Your task to perform on an android device: turn on the 24-hour format for clock Image 0: 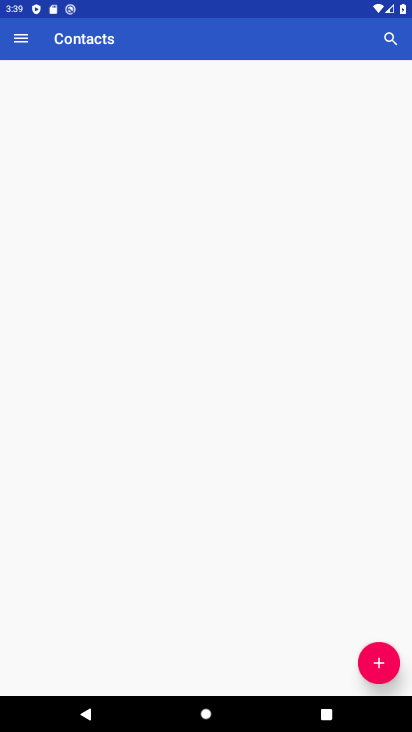
Step 0: press home button
Your task to perform on an android device: turn on the 24-hour format for clock Image 1: 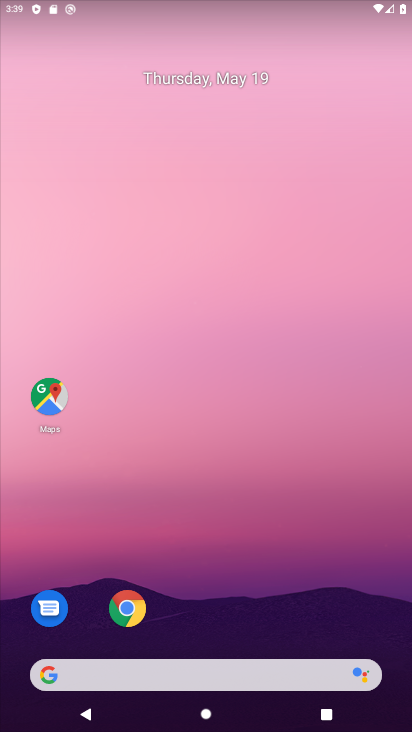
Step 1: drag from (243, 592) to (184, 153)
Your task to perform on an android device: turn on the 24-hour format for clock Image 2: 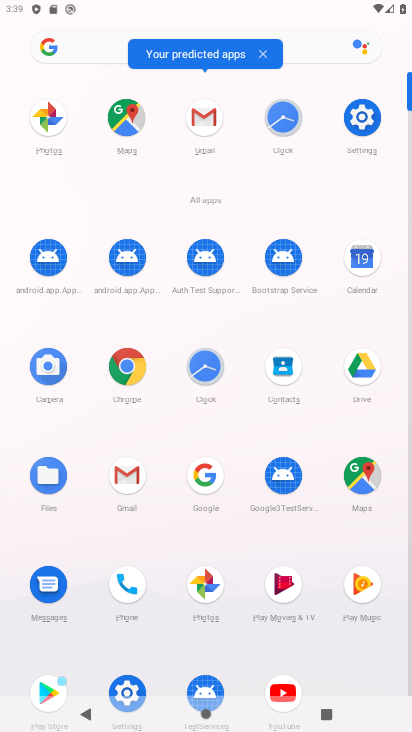
Step 2: click (282, 117)
Your task to perform on an android device: turn on the 24-hour format for clock Image 3: 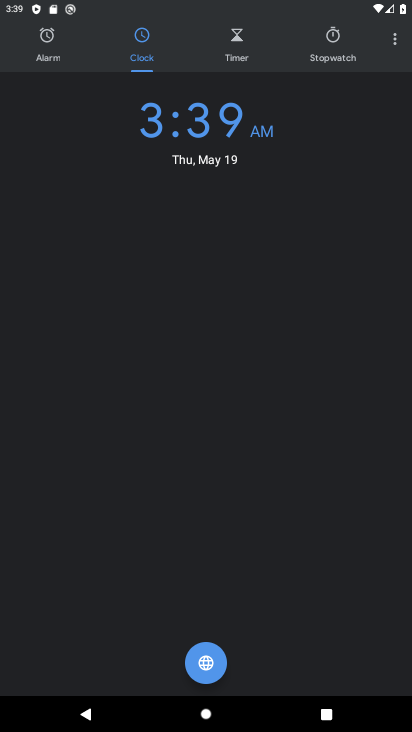
Step 3: click (396, 39)
Your task to perform on an android device: turn on the 24-hour format for clock Image 4: 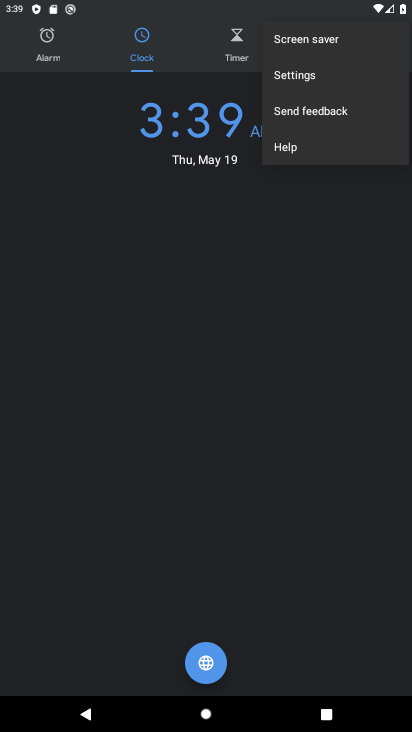
Step 4: click (316, 79)
Your task to perform on an android device: turn on the 24-hour format for clock Image 5: 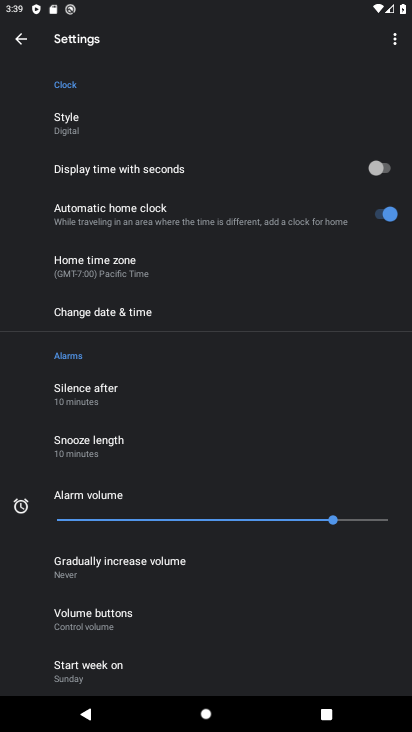
Step 5: click (99, 311)
Your task to perform on an android device: turn on the 24-hour format for clock Image 6: 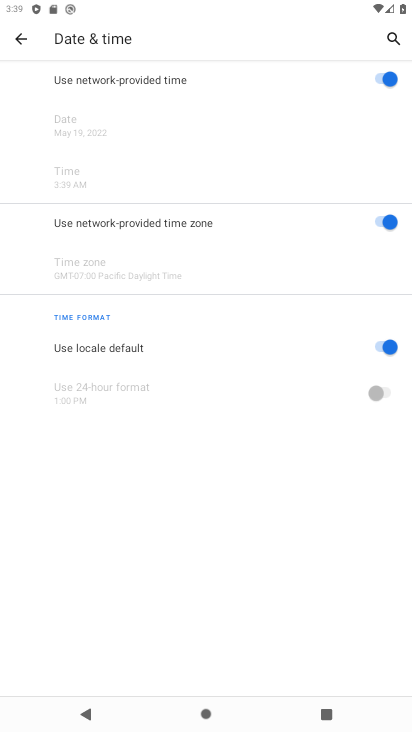
Step 6: click (392, 347)
Your task to perform on an android device: turn on the 24-hour format for clock Image 7: 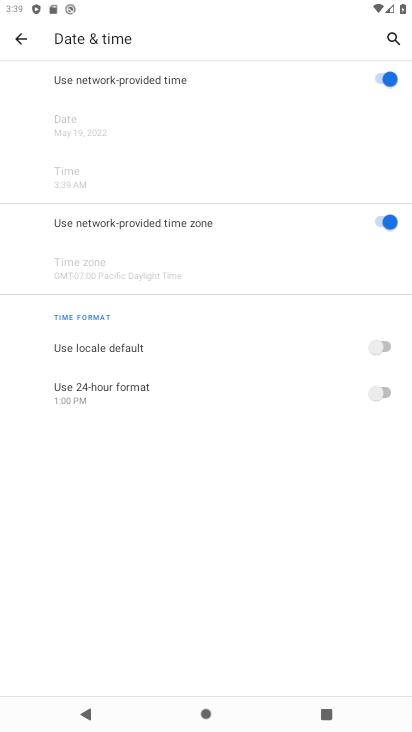
Step 7: click (381, 395)
Your task to perform on an android device: turn on the 24-hour format for clock Image 8: 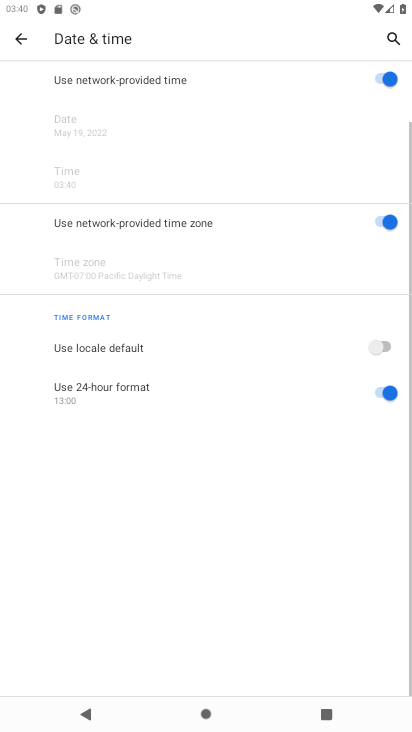
Step 8: task complete